Your task to perform on an android device: Open settings Image 0: 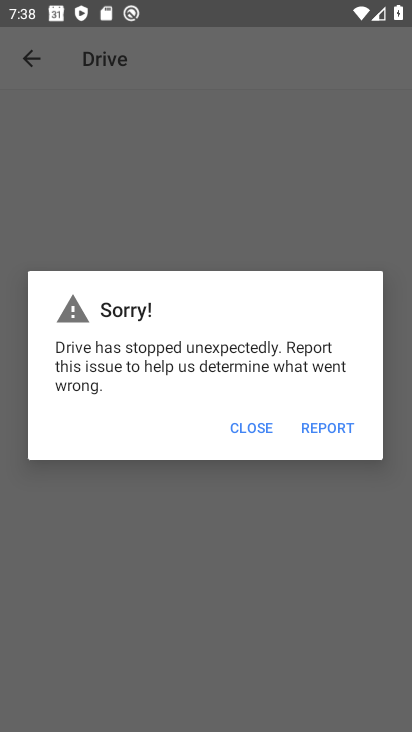
Step 0: press home button
Your task to perform on an android device: Open settings Image 1: 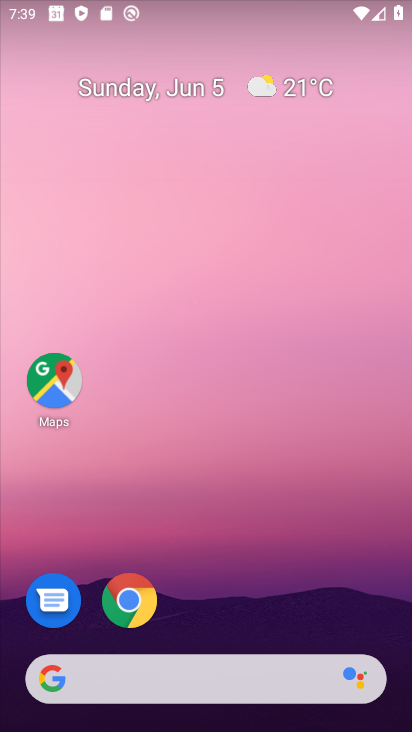
Step 1: drag from (135, 731) to (84, 135)
Your task to perform on an android device: Open settings Image 2: 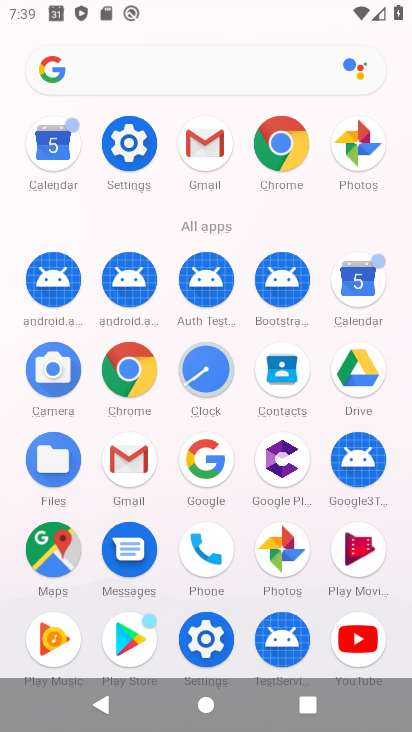
Step 2: click (116, 145)
Your task to perform on an android device: Open settings Image 3: 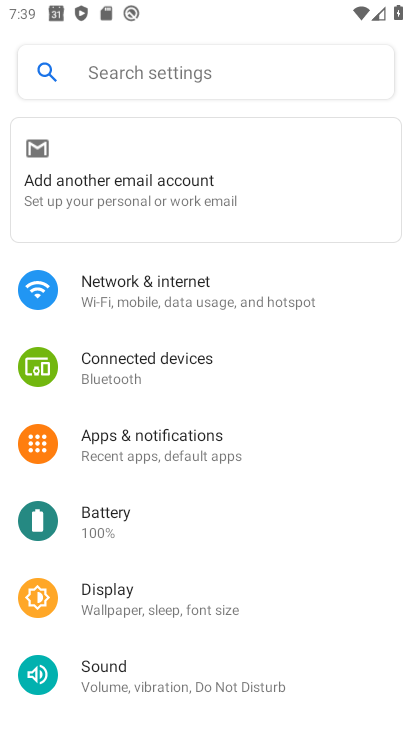
Step 3: task complete